Your task to perform on an android device: View the shopping cart on newegg.com. Search for "macbook" on newegg.com, select the first entry, and add it to the cart. Image 0: 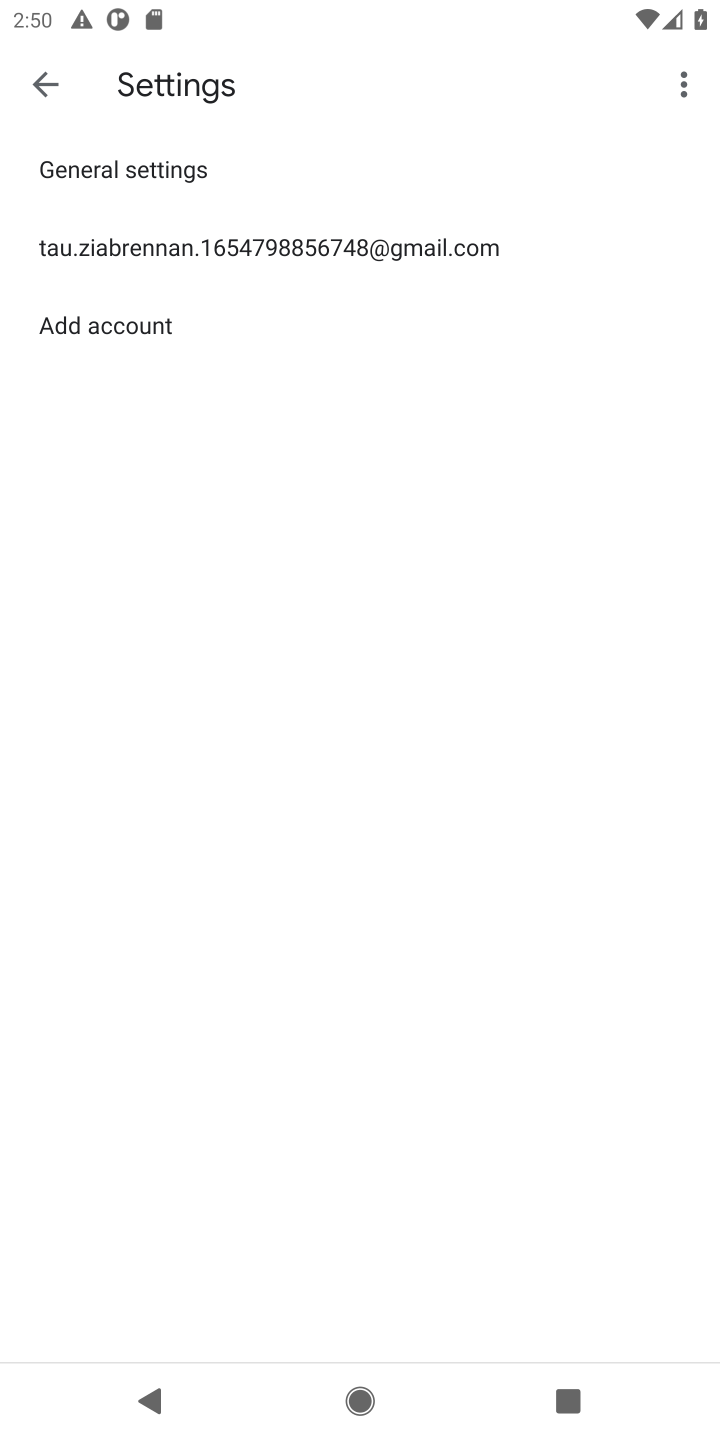
Step 0: press home button
Your task to perform on an android device: View the shopping cart on newegg.com. Search for "macbook" on newegg.com, select the first entry, and add it to the cart. Image 1: 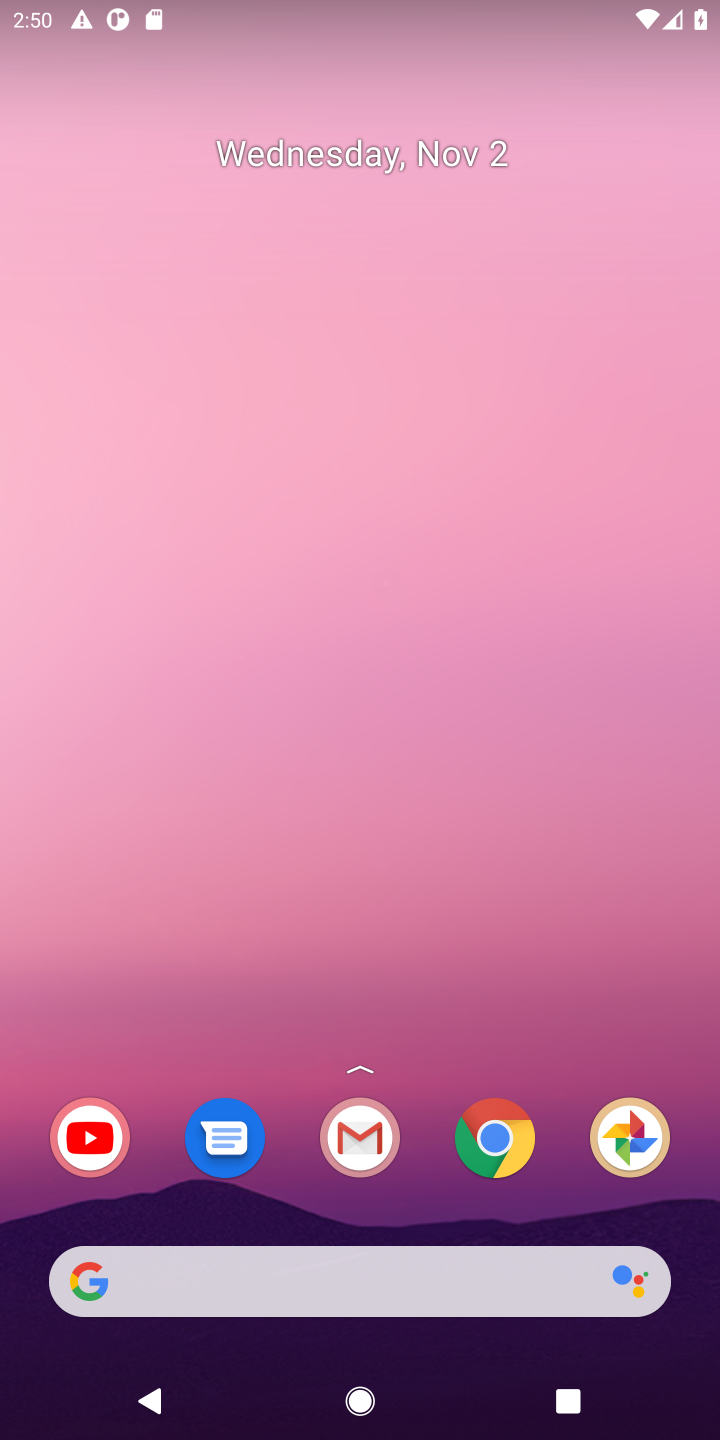
Step 1: click (143, 1274)
Your task to perform on an android device: View the shopping cart on newegg.com. Search for "macbook" on newegg.com, select the first entry, and add it to the cart. Image 2: 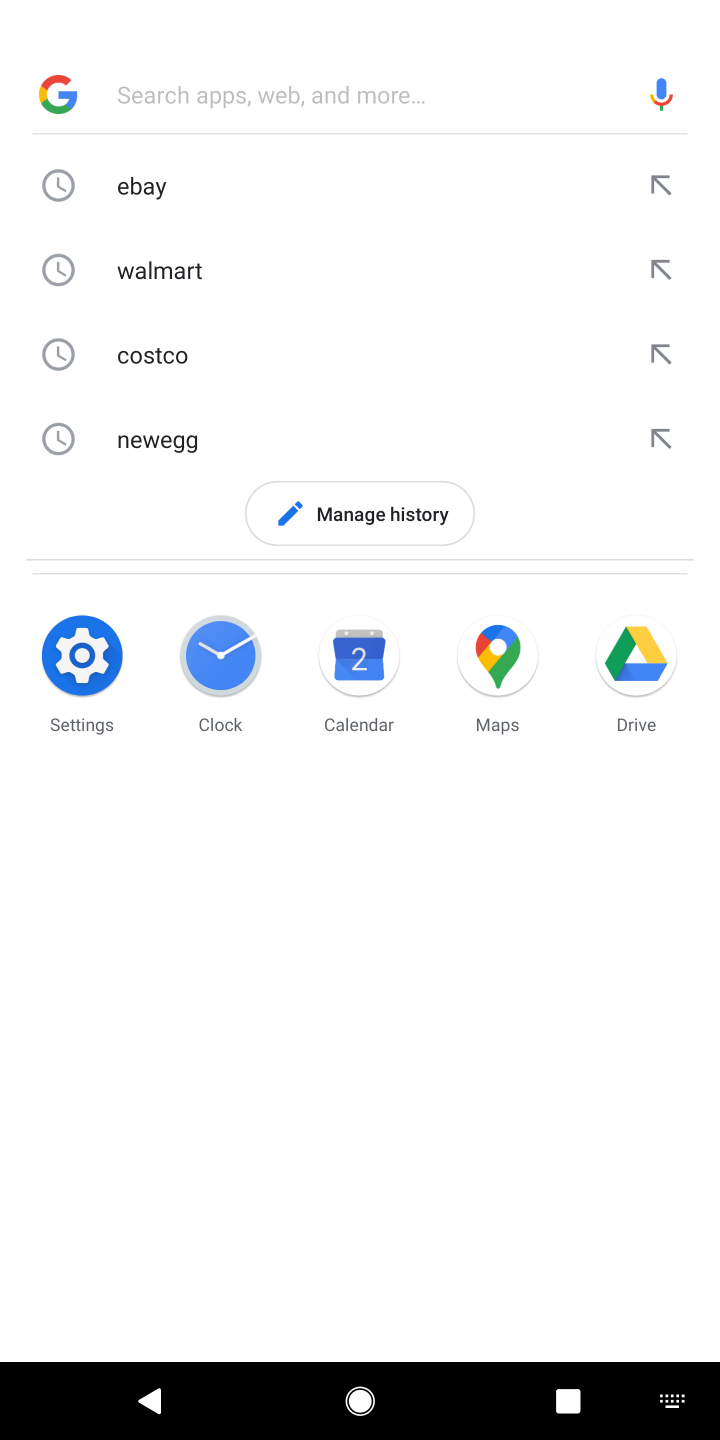
Step 2: press enter
Your task to perform on an android device: View the shopping cart on newegg.com. Search for "macbook" on newegg.com, select the first entry, and add it to the cart. Image 3: 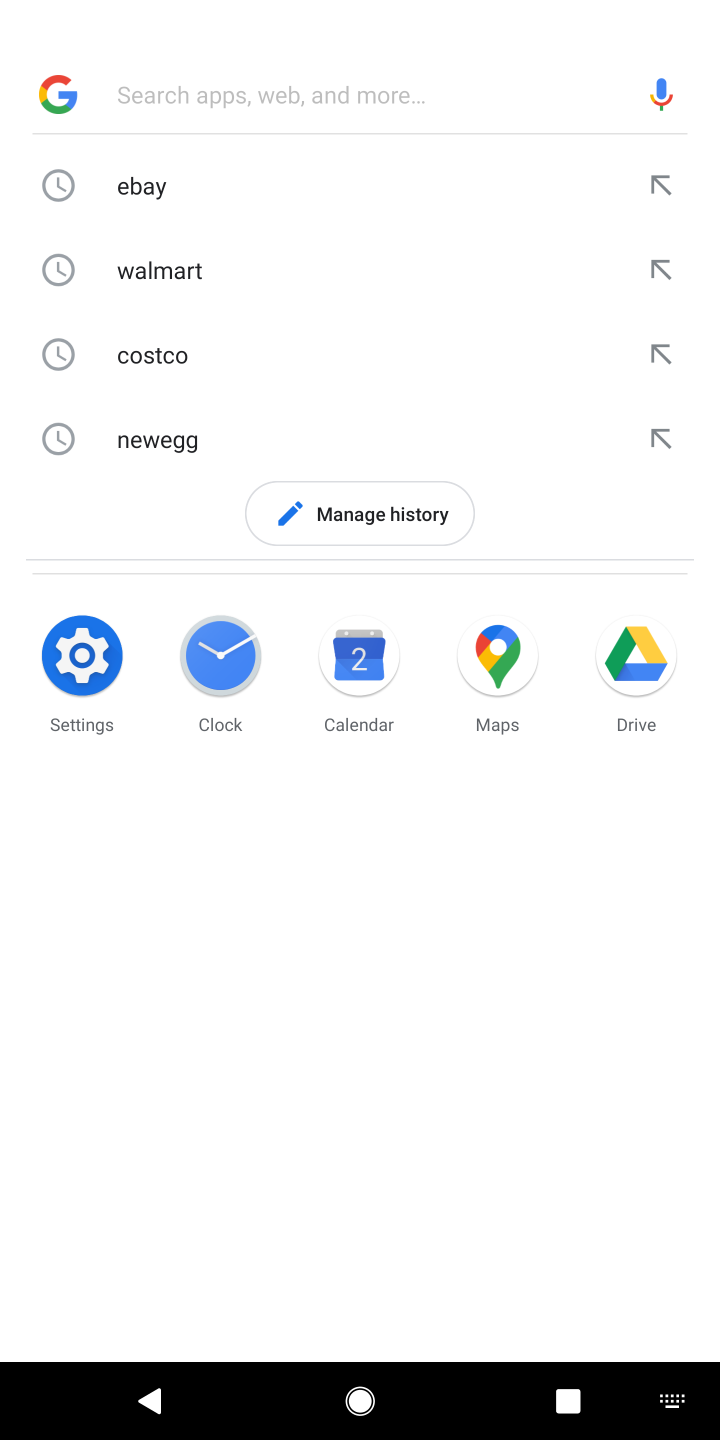
Step 3: type "newegg.com"
Your task to perform on an android device: View the shopping cart on newegg.com. Search for "macbook" on newegg.com, select the first entry, and add it to the cart. Image 4: 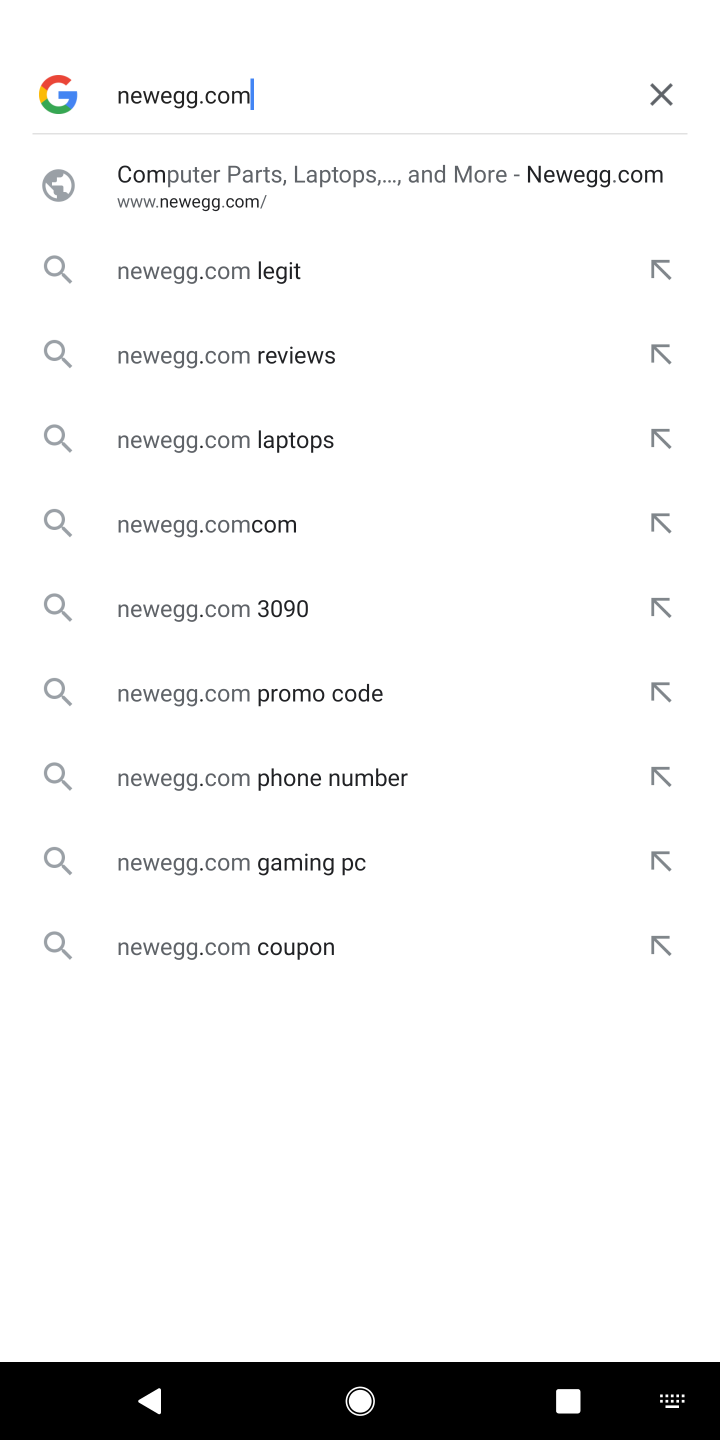
Step 4: press enter
Your task to perform on an android device: View the shopping cart on newegg.com. Search for "macbook" on newegg.com, select the first entry, and add it to the cart. Image 5: 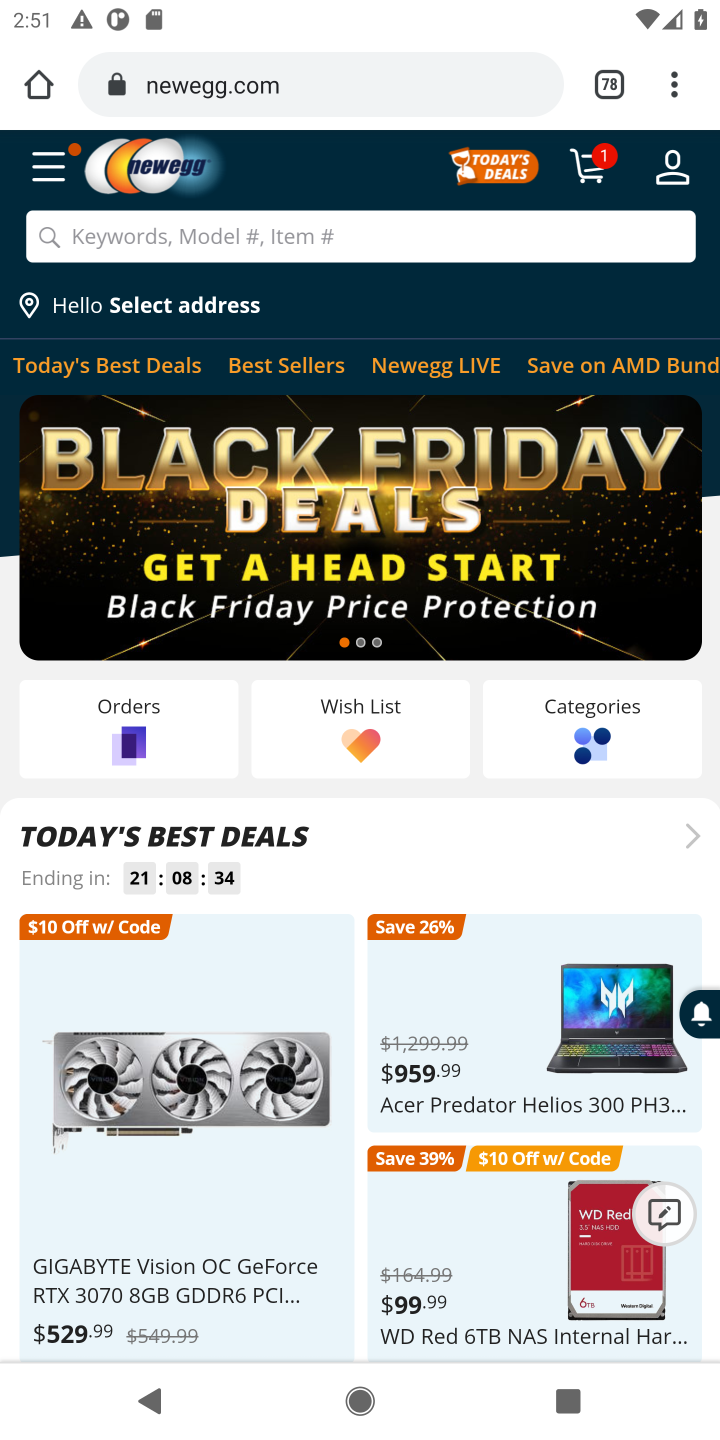
Step 5: click (593, 161)
Your task to perform on an android device: View the shopping cart on newegg.com. Search for "macbook" on newegg.com, select the first entry, and add it to the cart. Image 6: 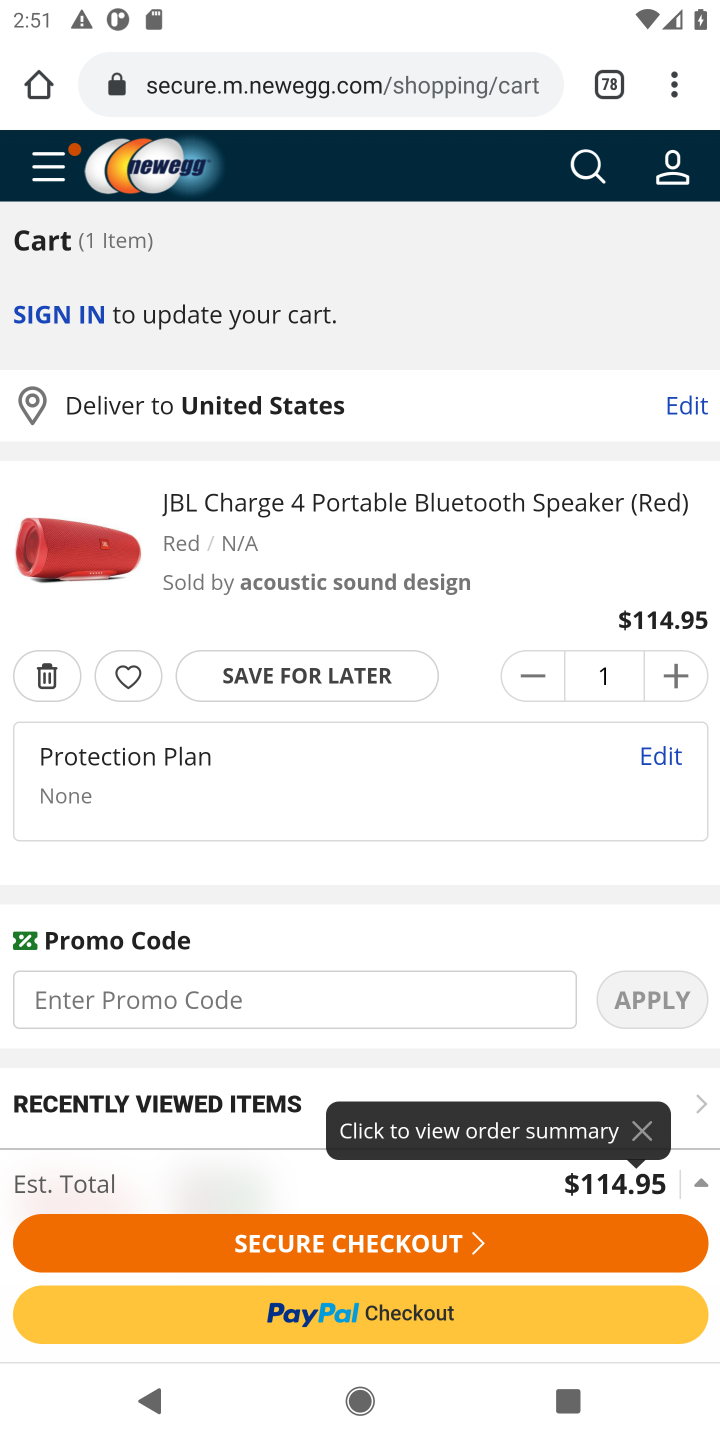
Step 6: click (584, 177)
Your task to perform on an android device: View the shopping cart on newegg.com. Search for "macbook" on newegg.com, select the first entry, and add it to the cart. Image 7: 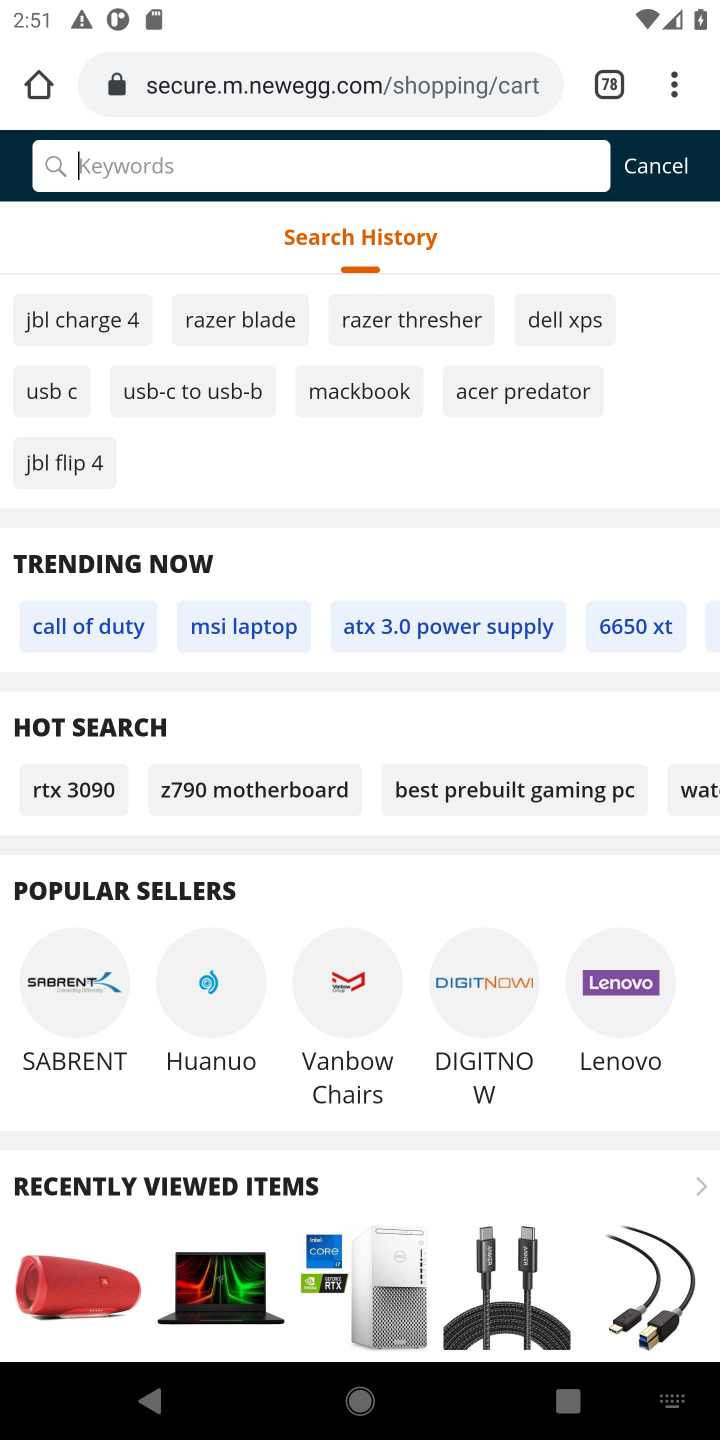
Step 7: type "macbook"
Your task to perform on an android device: View the shopping cart on newegg.com. Search for "macbook" on newegg.com, select the first entry, and add it to the cart. Image 8: 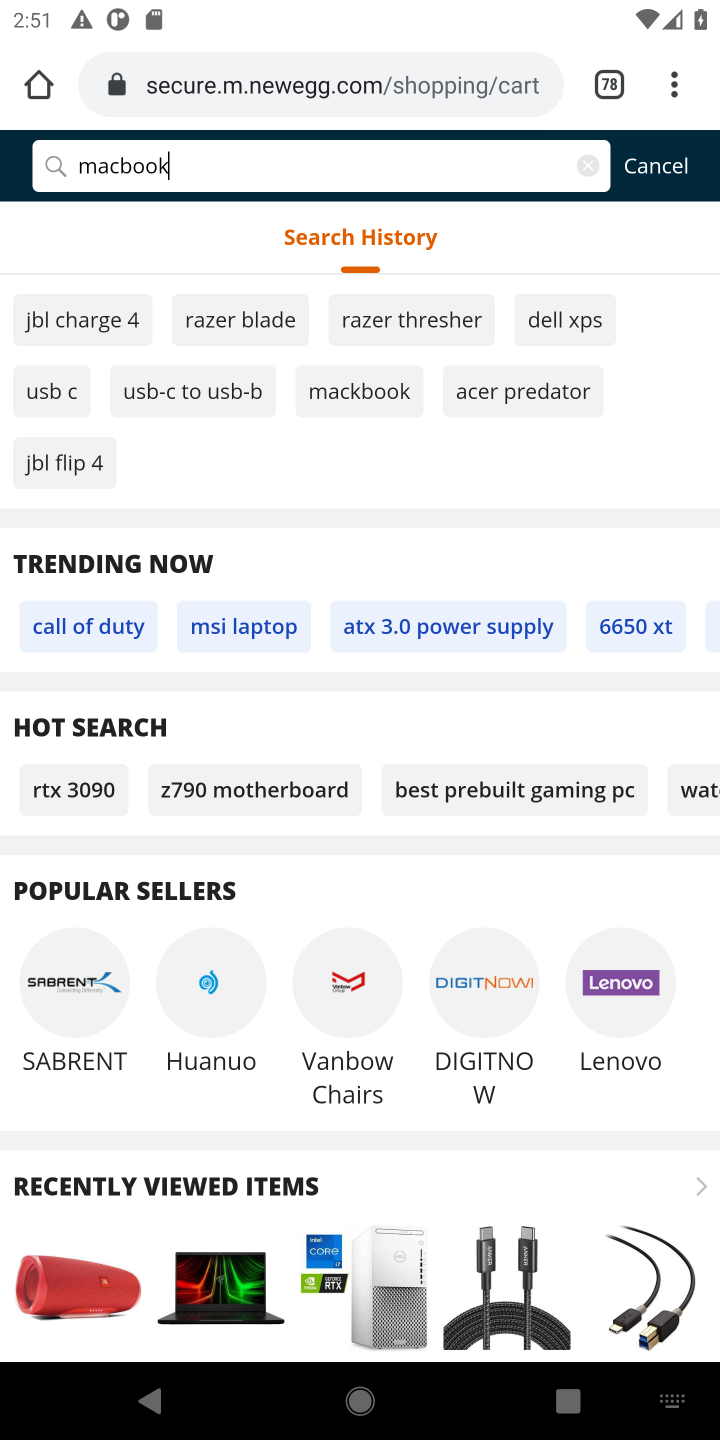
Step 8: press enter
Your task to perform on an android device: View the shopping cart on newegg.com. Search for "macbook" on newegg.com, select the first entry, and add it to the cart. Image 9: 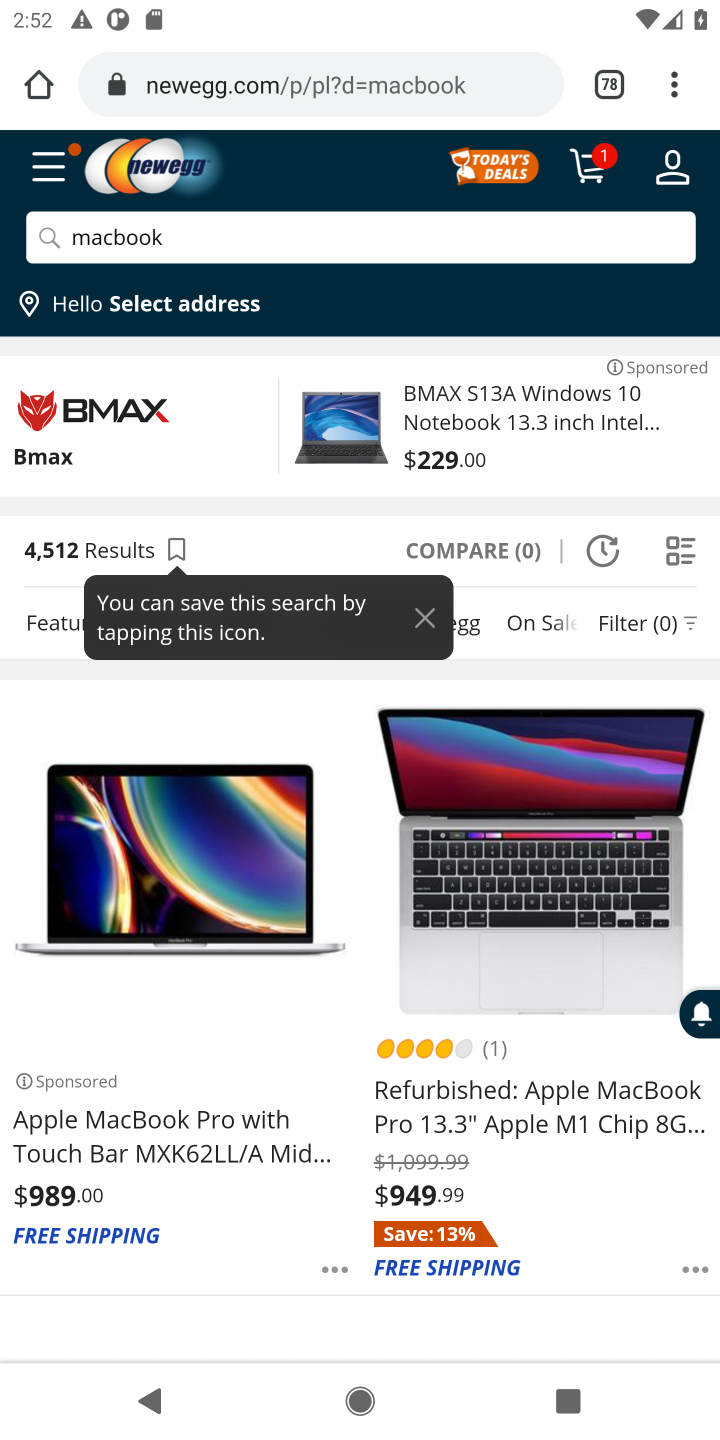
Step 9: click (122, 1150)
Your task to perform on an android device: View the shopping cart on newegg.com. Search for "macbook" on newegg.com, select the first entry, and add it to the cart. Image 10: 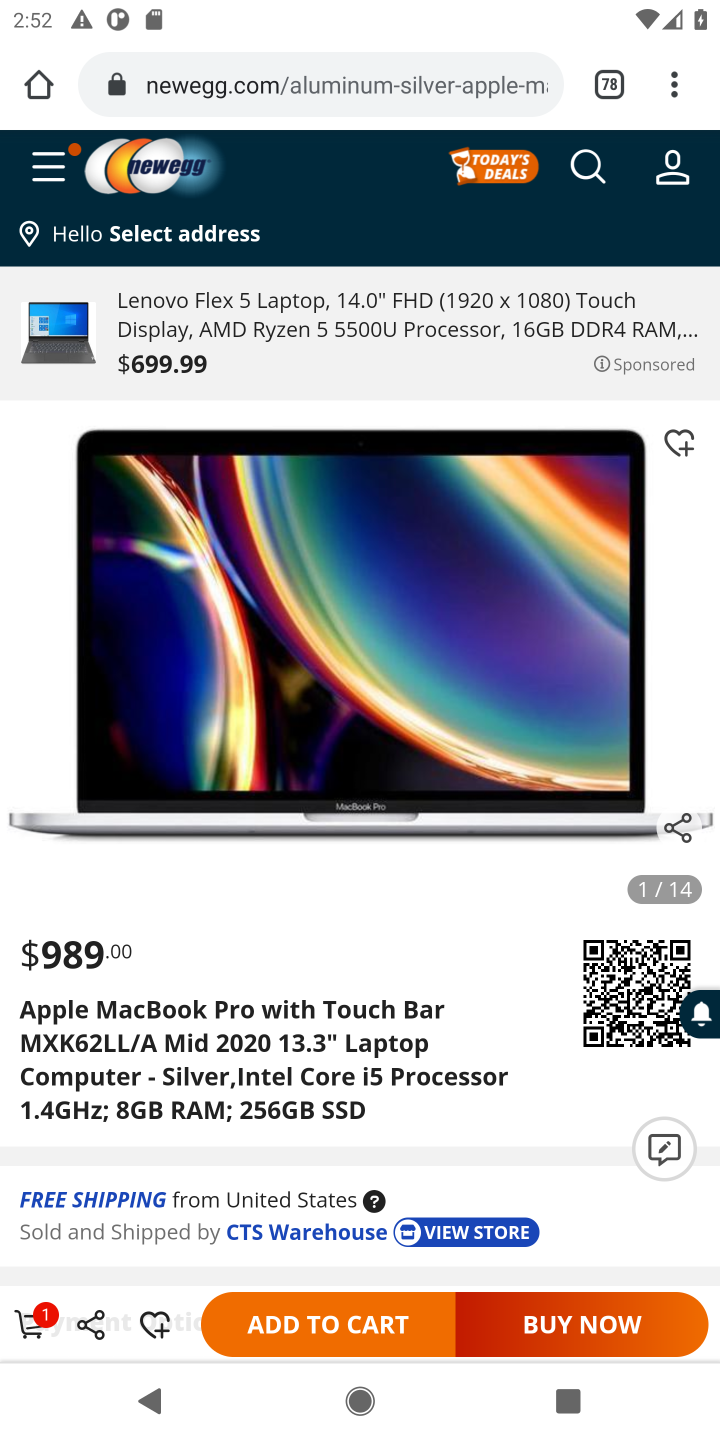
Step 10: click (280, 1325)
Your task to perform on an android device: View the shopping cart on newegg.com. Search for "macbook" on newegg.com, select the first entry, and add it to the cart. Image 11: 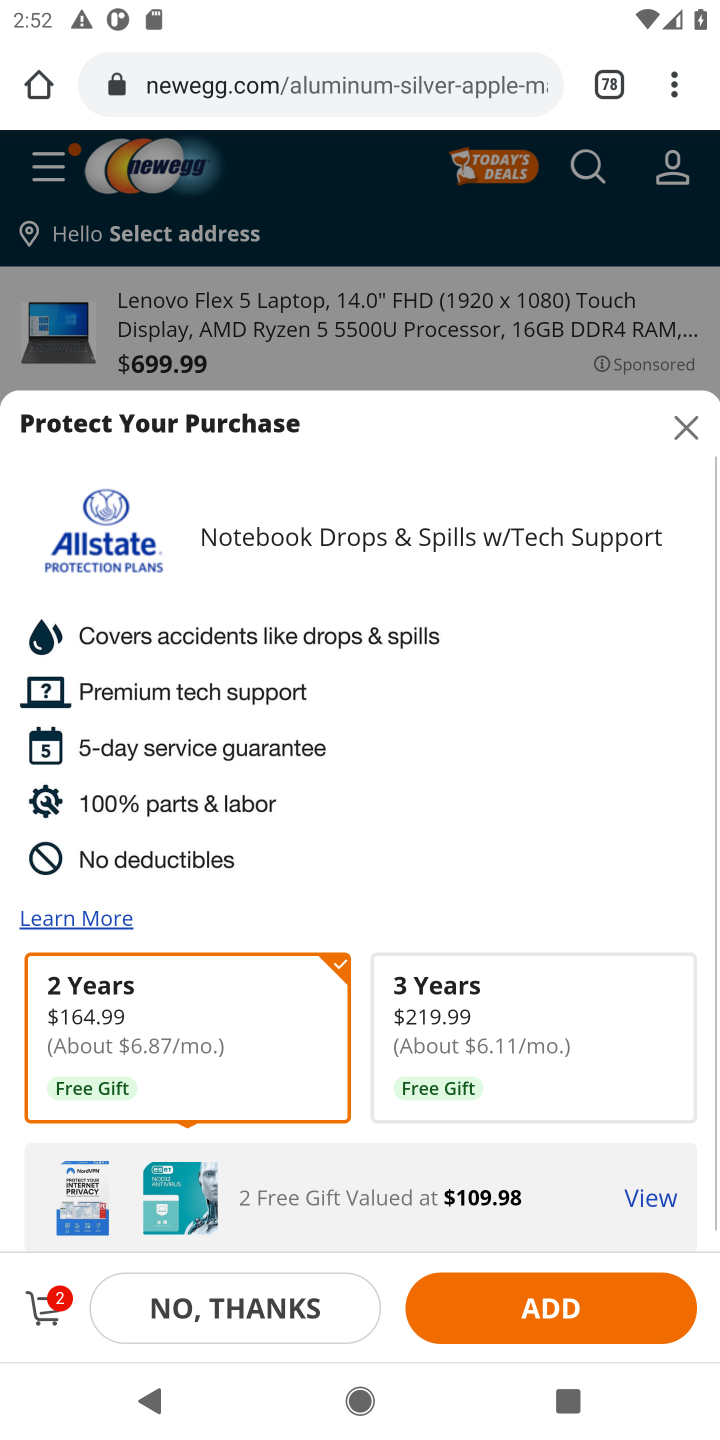
Step 11: task complete